Your task to perform on an android device: Check the news Image 0: 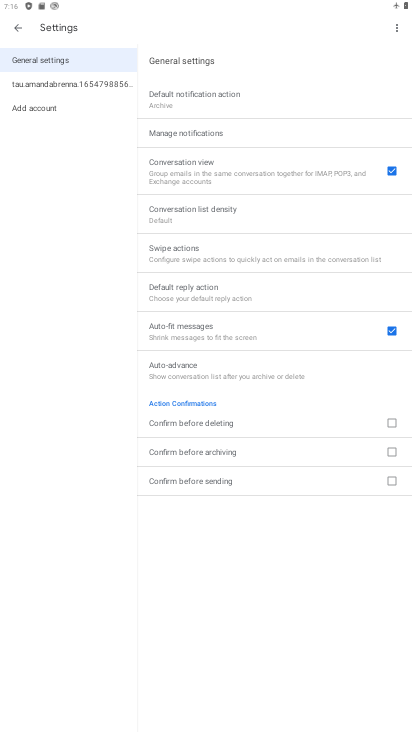
Step 0: press home button
Your task to perform on an android device: Check the news Image 1: 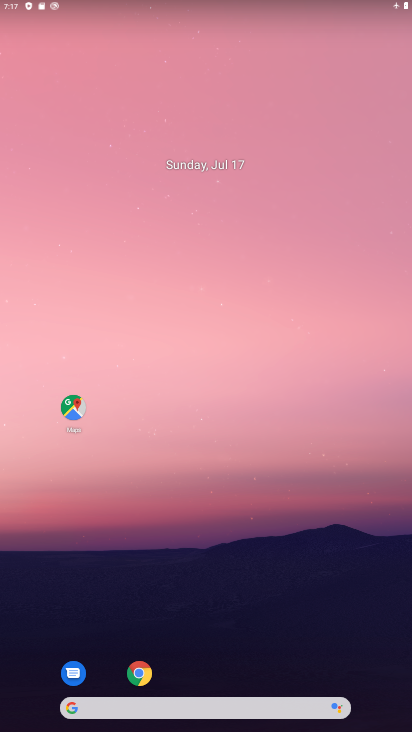
Step 1: drag from (312, 638) to (267, 47)
Your task to perform on an android device: Check the news Image 2: 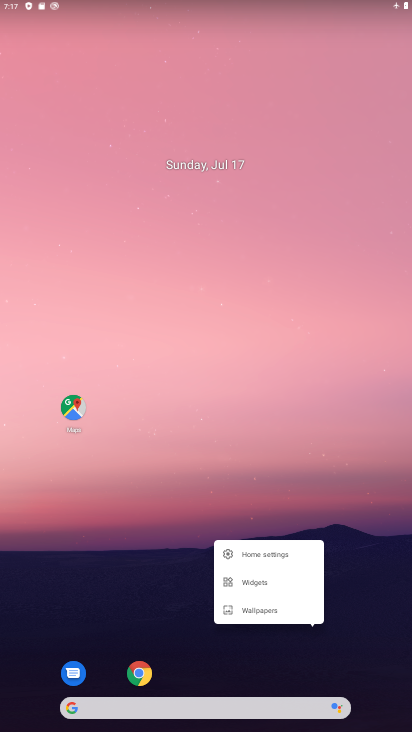
Step 2: drag from (162, 655) to (130, 54)
Your task to perform on an android device: Check the news Image 3: 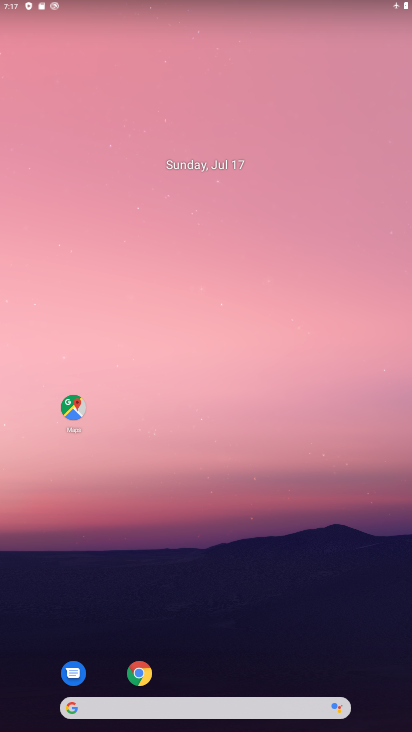
Step 3: drag from (286, 551) to (320, 72)
Your task to perform on an android device: Check the news Image 4: 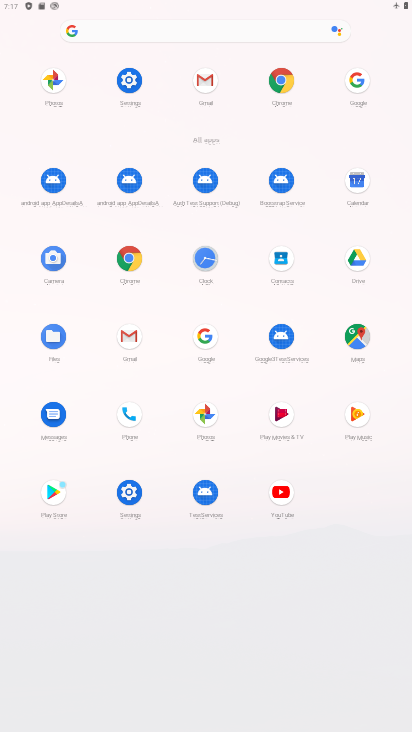
Step 4: click (280, 81)
Your task to perform on an android device: Check the news Image 5: 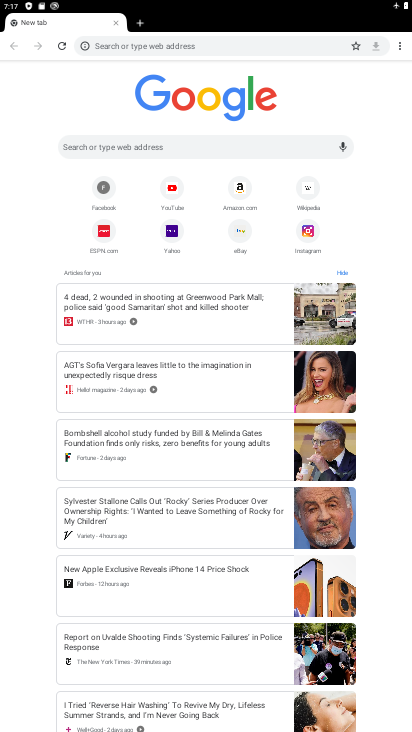
Step 5: task complete